Your task to perform on an android device: change alarm snooze length Image 0: 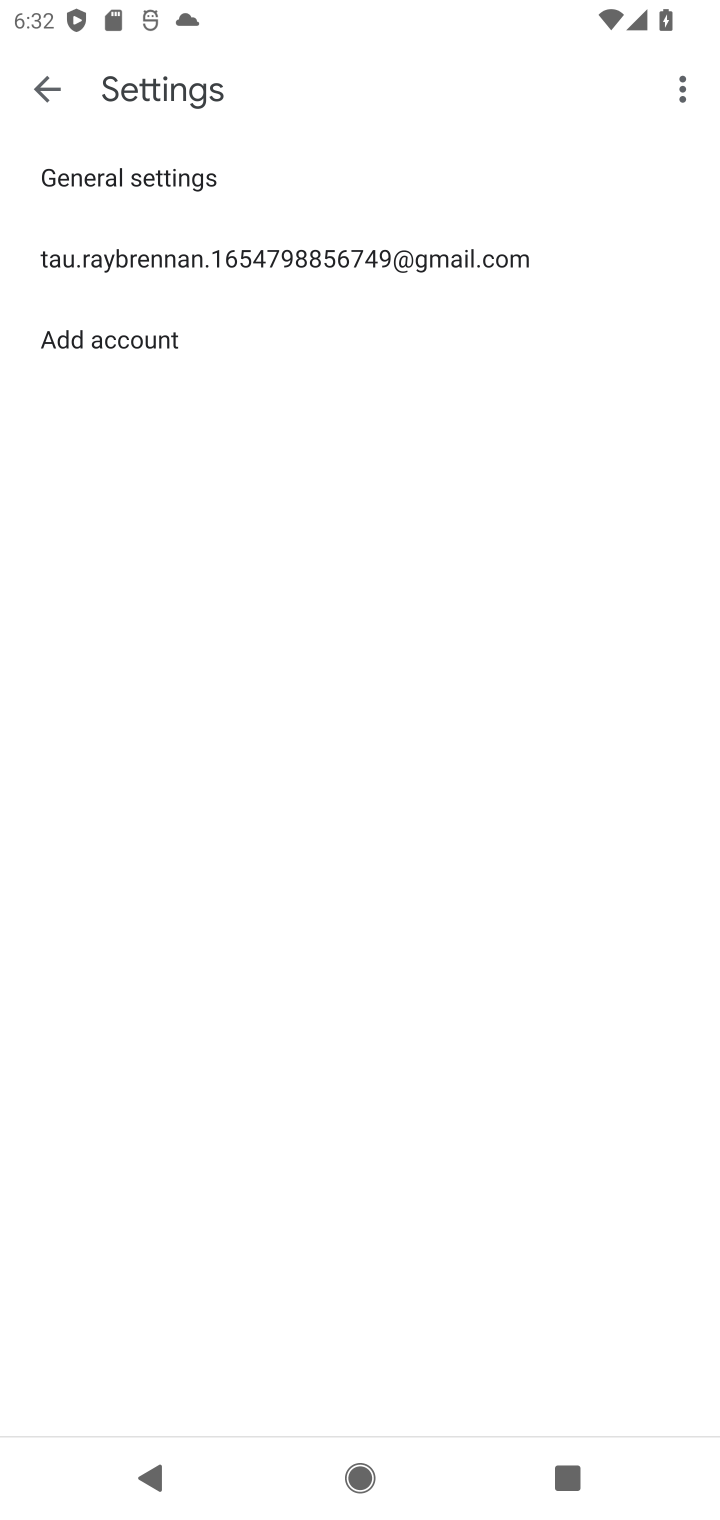
Step 0: press home button
Your task to perform on an android device: change alarm snooze length Image 1: 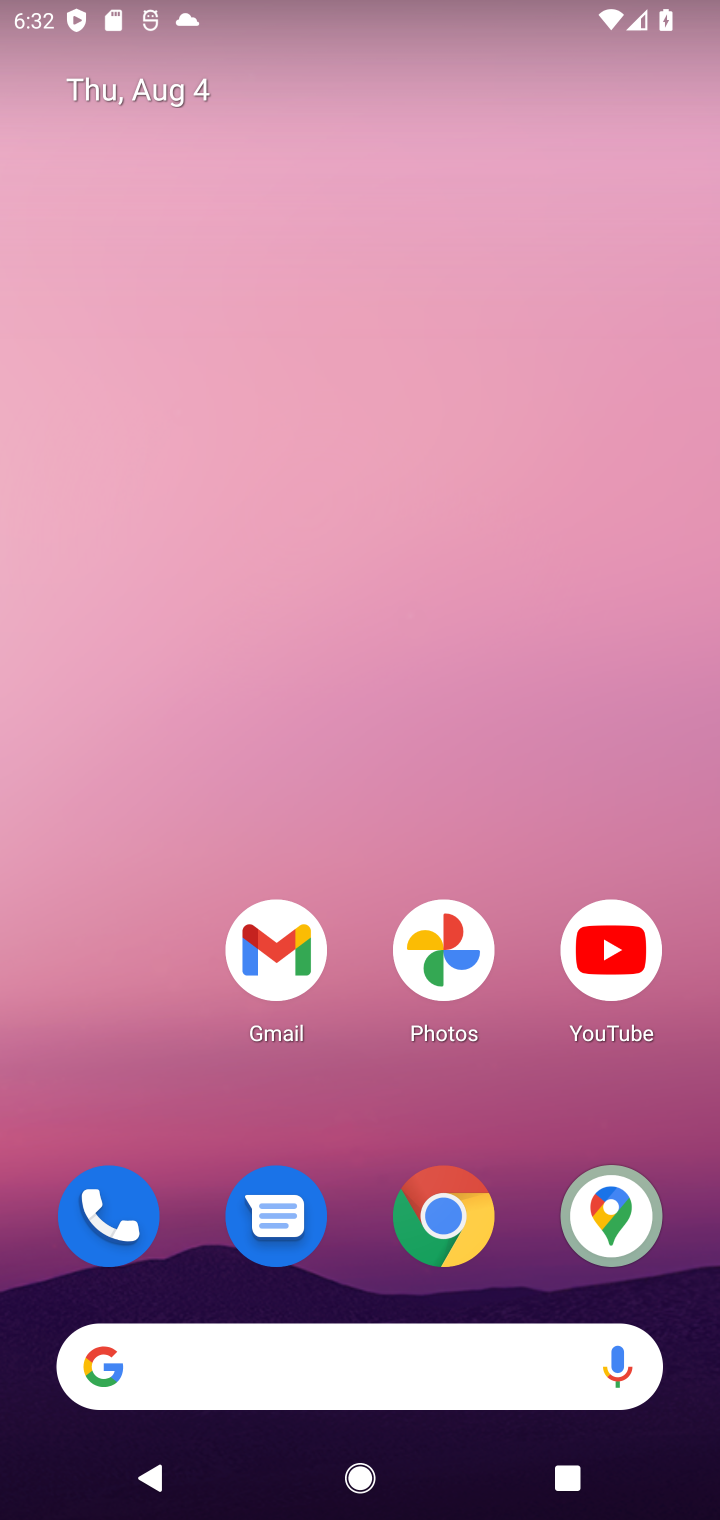
Step 1: drag from (332, 985) to (359, 178)
Your task to perform on an android device: change alarm snooze length Image 2: 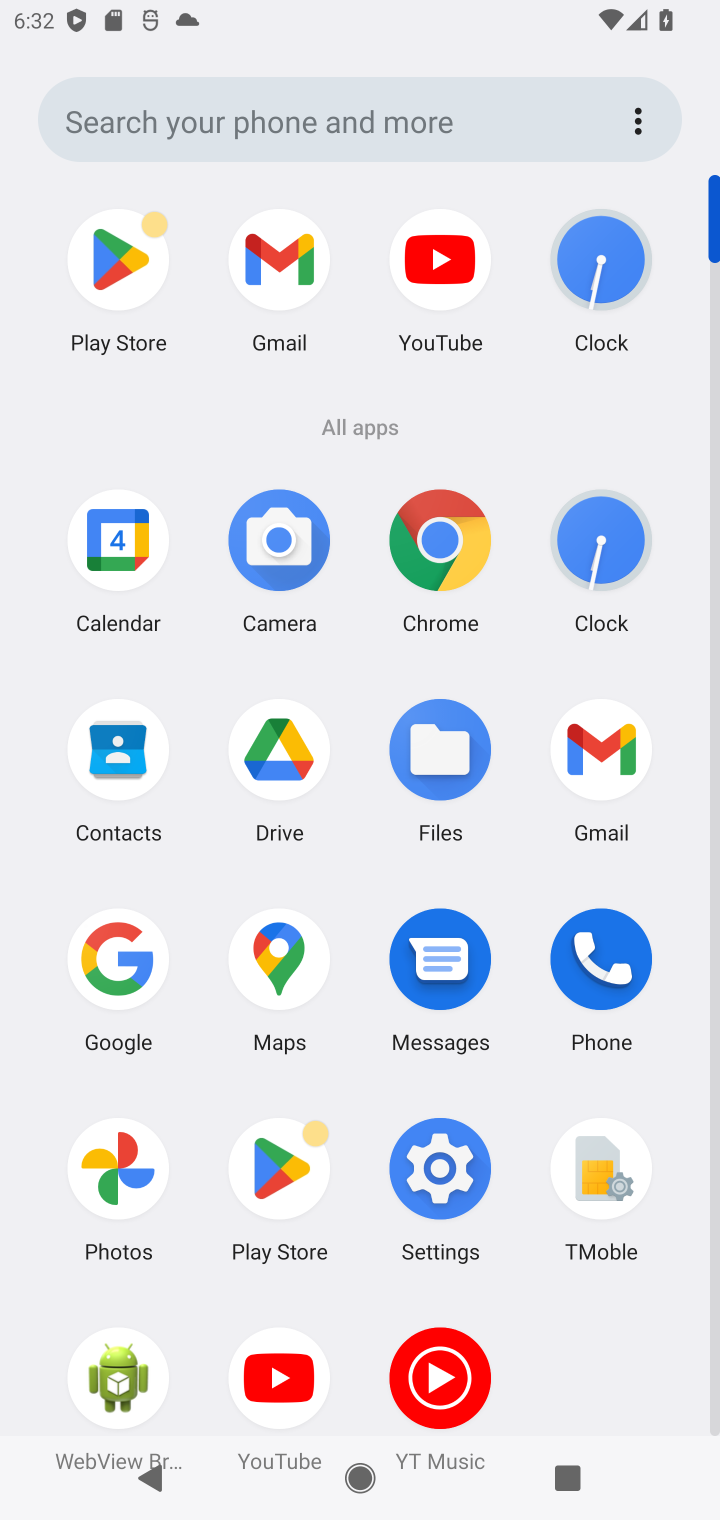
Step 2: click (623, 547)
Your task to perform on an android device: change alarm snooze length Image 3: 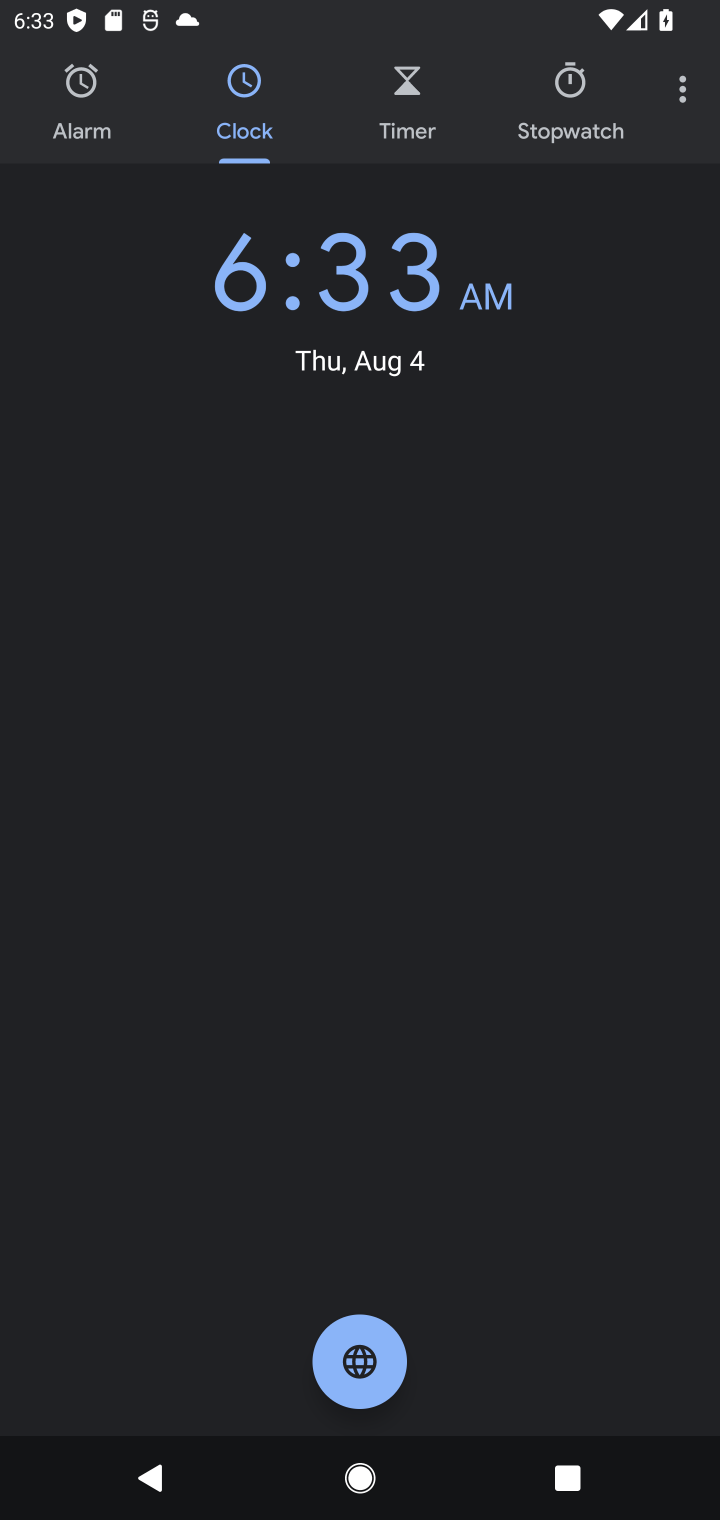
Step 3: click (698, 97)
Your task to perform on an android device: change alarm snooze length Image 4: 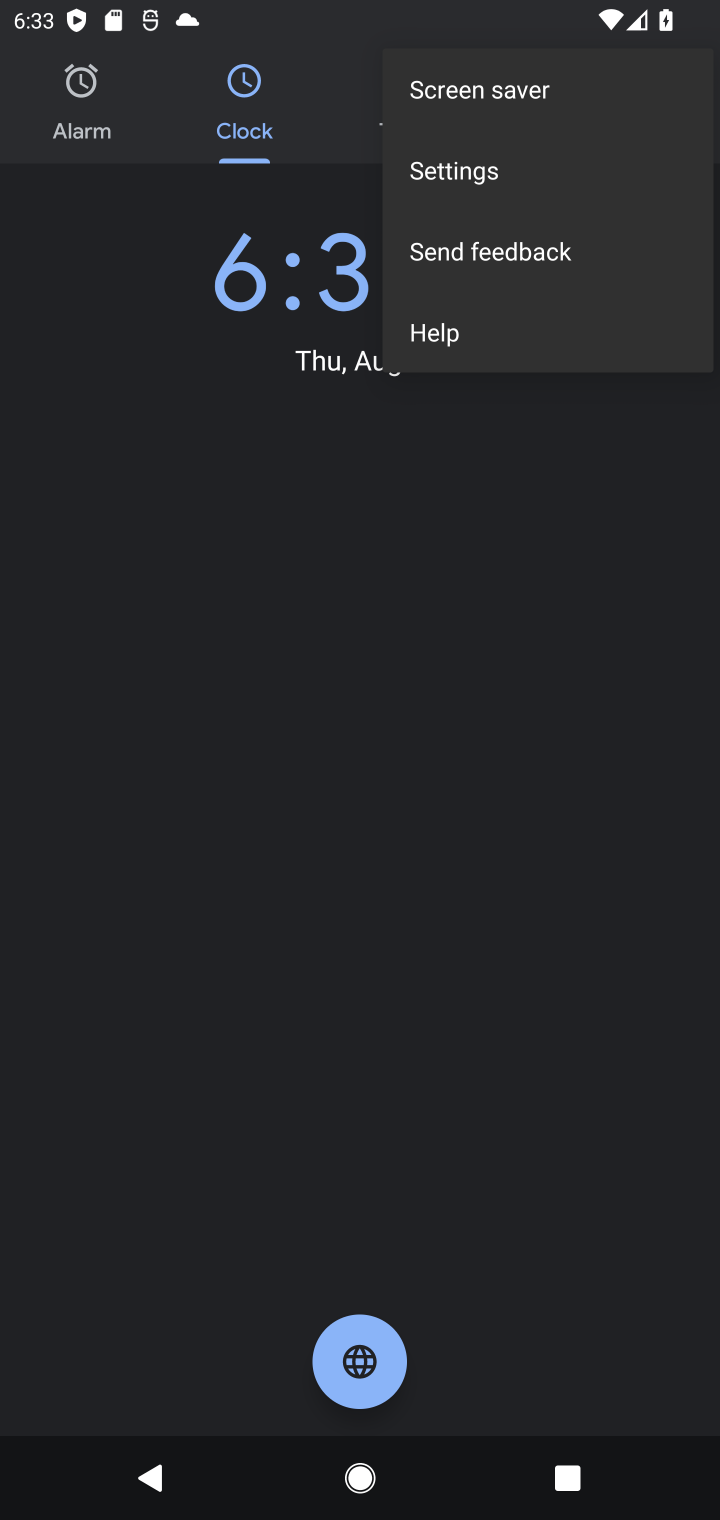
Step 4: click (508, 170)
Your task to perform on an android device: change alarm snooze length Image 5: 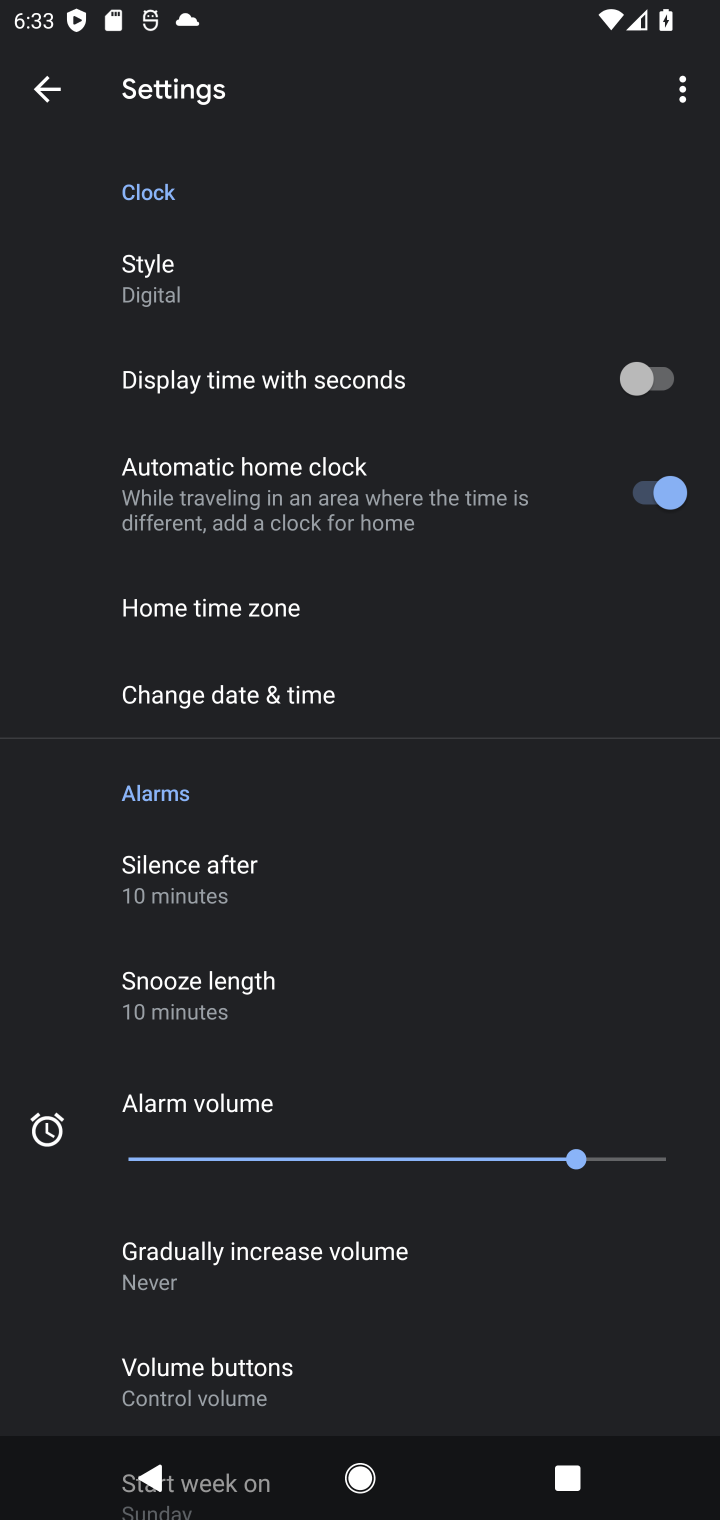
Step 5: click (204, 1016)
Your task to perform on an android device: change alarm snooze length Image 6: 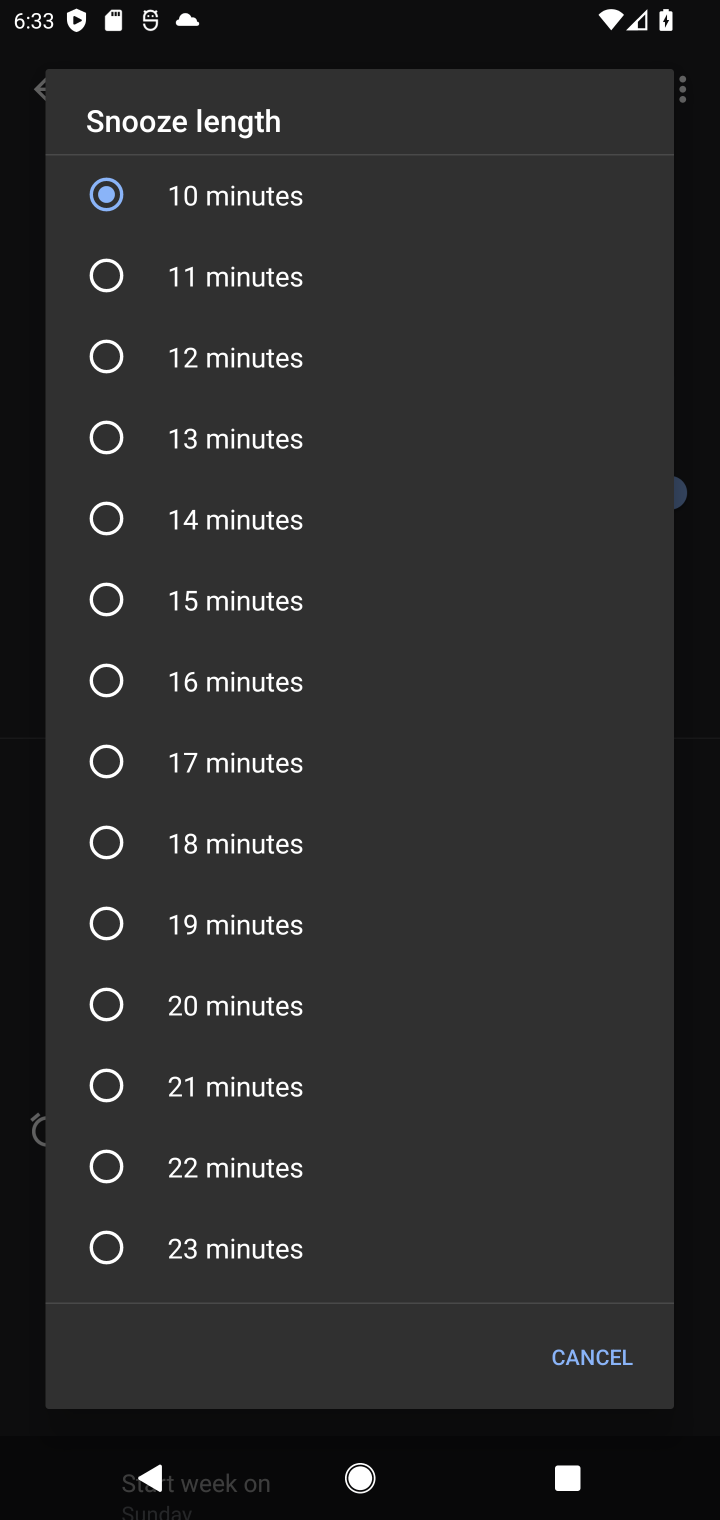
Step 6: click (123, 1263)
Your task to perform on an android device: change alarm snooze length Image 7: 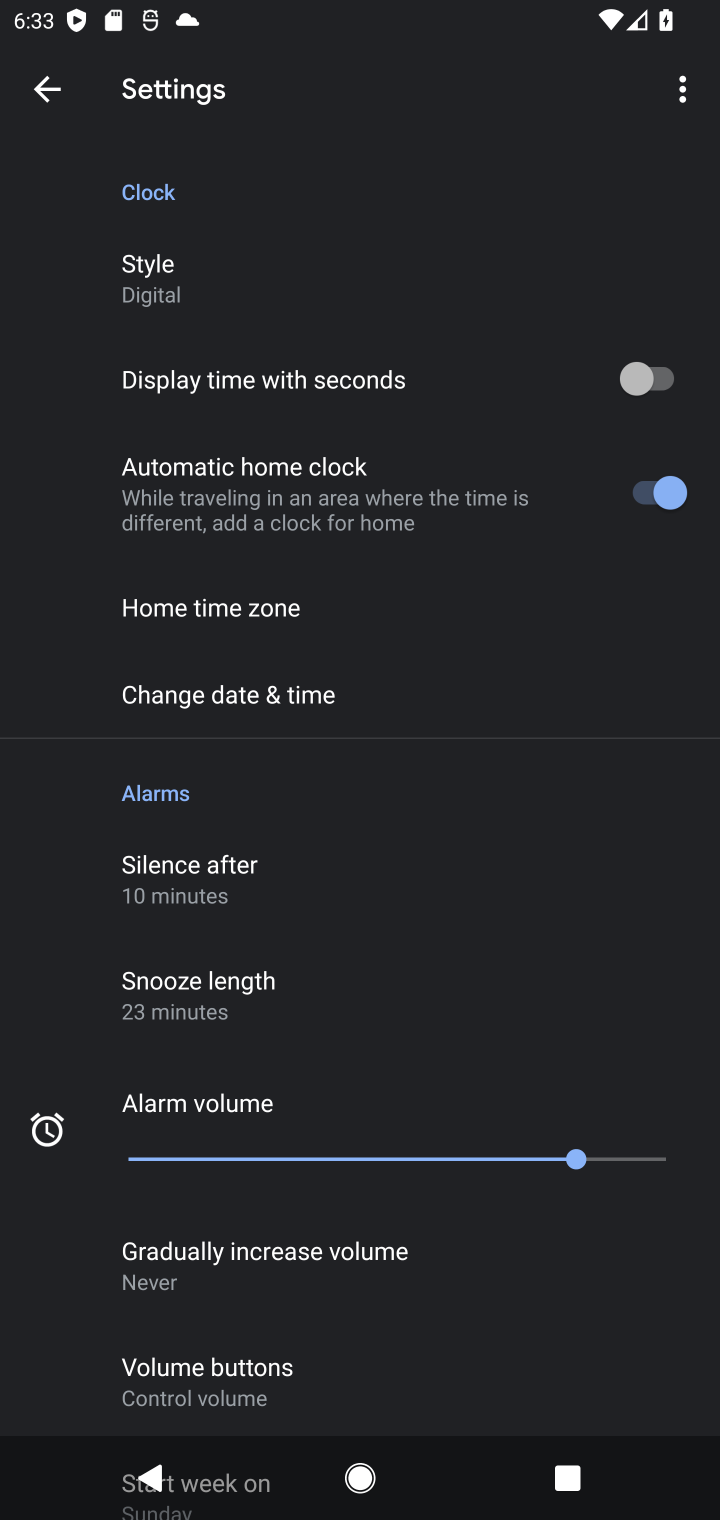
Step 7: task complete